Your task to perform on an android device: all mails in gmail Image 0: 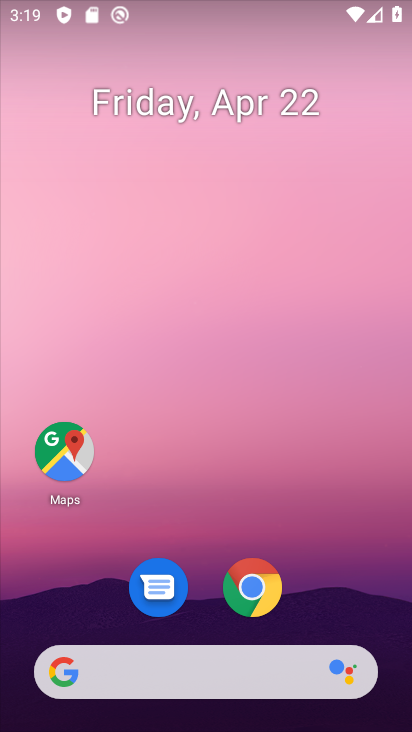
Step 0: drag from (369, 612) to (367, 2)
Your task to perform on an android device: all mails in gmail Image 1: 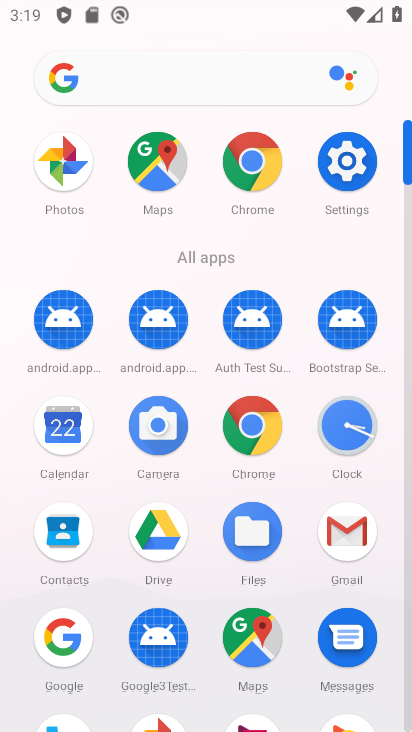
Step 1: click (343, 535)
Your task to perform on an android device: all mails in gmail Image 2: 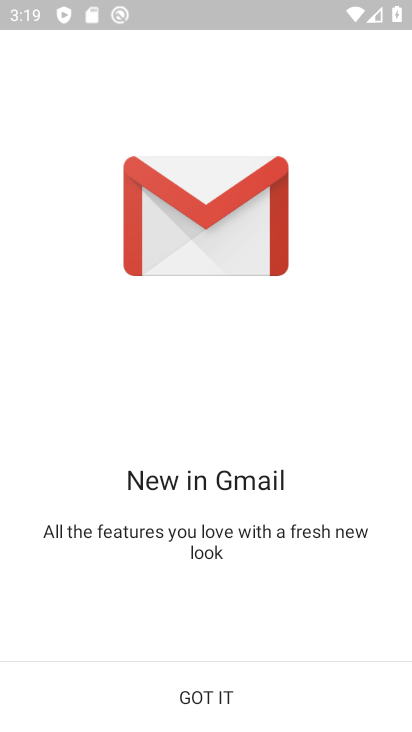
Step 2: click (193, 701)
Your task to perform on an android device: all mails in gmail Image 3: 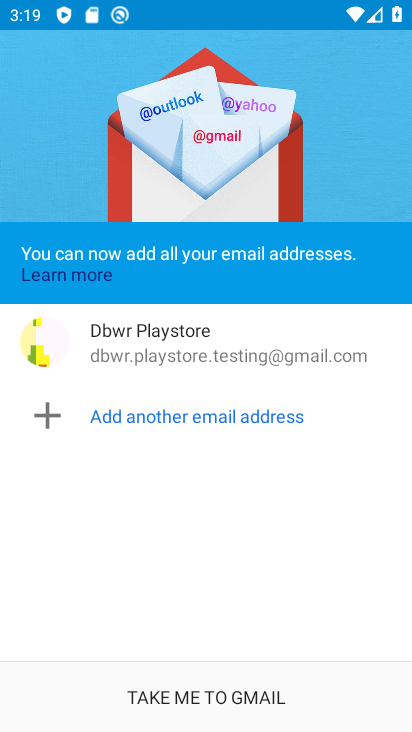
Step 3: click (197, 697)
Your task to perform on an android device: all mails in gmail Image 4: 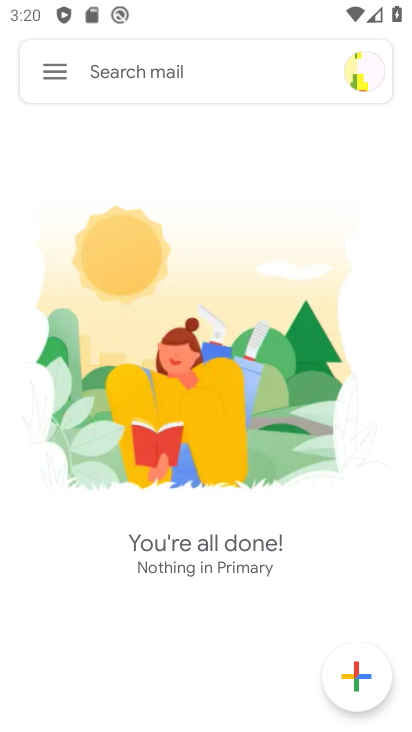
Step 4: click (54, 73)
Your task to perform on an android device: all mails in gmail Image 5: 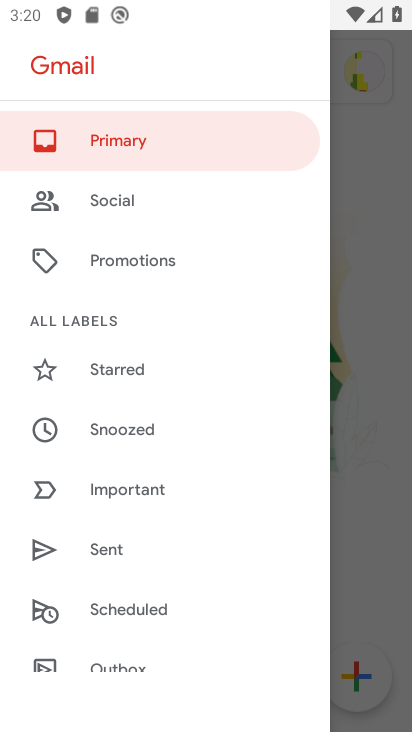
Step 5: drag from (186, 636) to (206, 306)
Your task to perform on an android device: all mails in gmail Image 6: 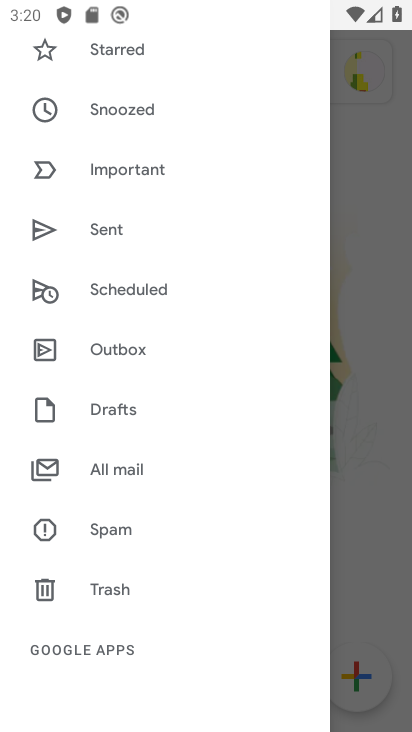
Step 6: click (108, 475)
Your task to perform on an android device: all mails in gmail Image 7: 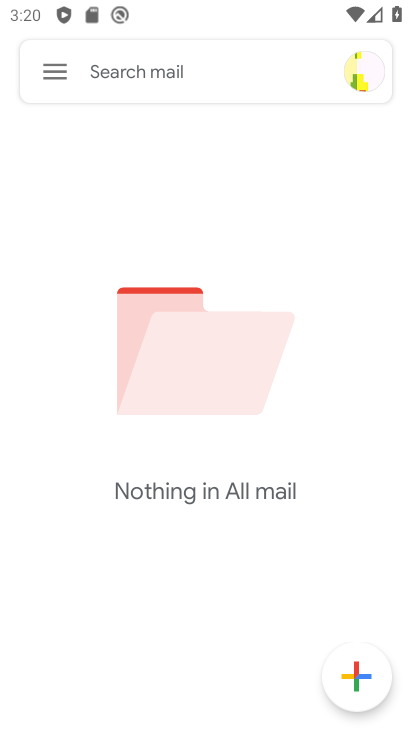
Step 7: task complete